Your task to perform on an android device: What is the news today? Image 0: 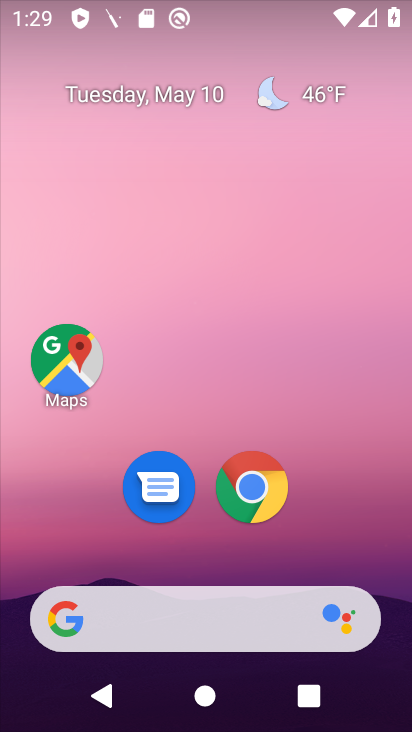
Step 0: drag from (346, 528) to (407, 337)
Your task to perform on an android device: What is the news today? Image 1: 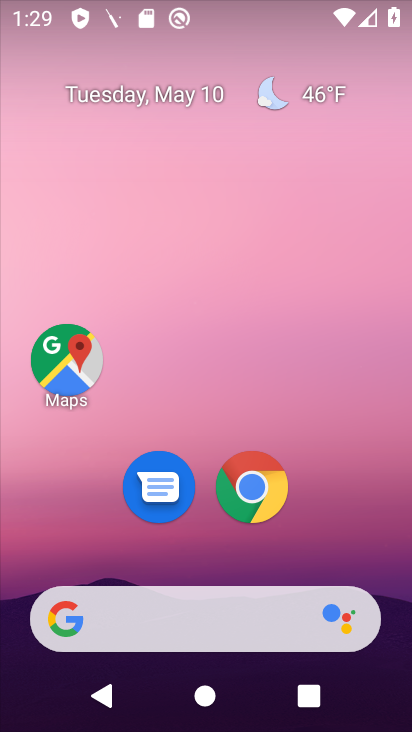
Step 1: click (275, 502)
Your task to perform on an android device: What is the news today? Image 2: 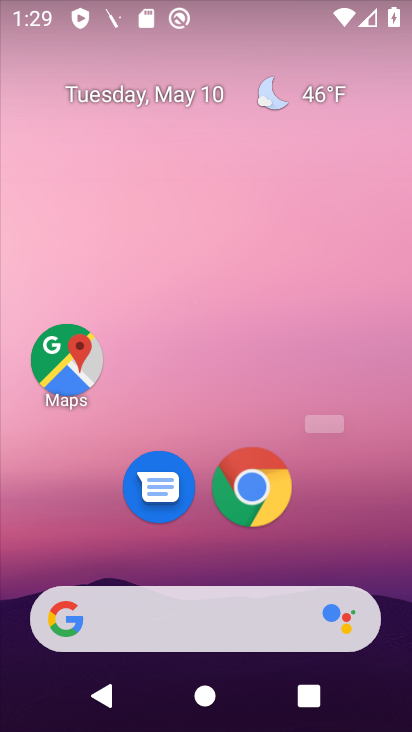
Step 2: click (277, 480)
Your task to perform on an android device: What is the news today? Image 3: 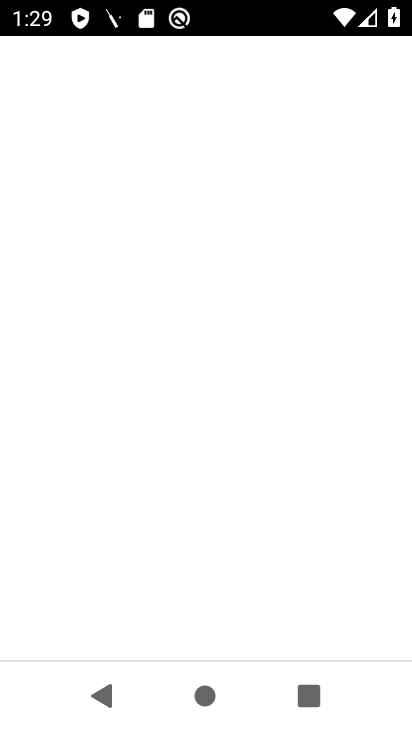
Step 3: click (256, 490)
Your task to perform on an android device: What is the news today? Image 4: 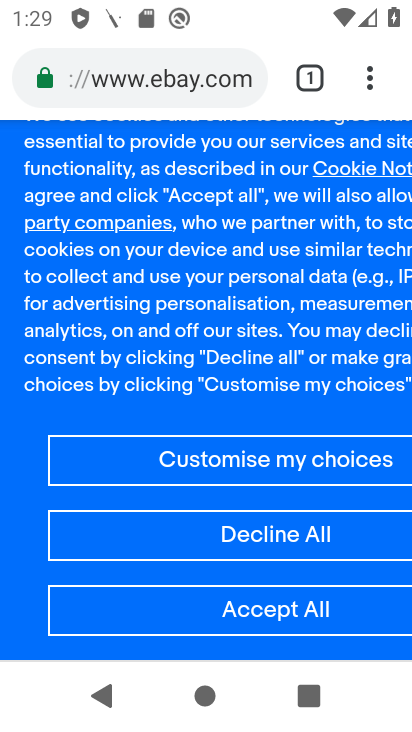
Step 4: click (230, 74)
Your task to perform on an android device: What is the news today? Image 5: 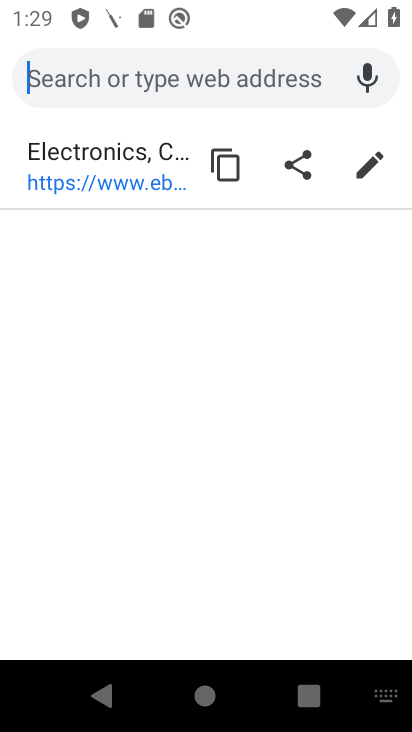
Step 5: type "news"
Your task to perform on an android device: What is the news today? Image 6: 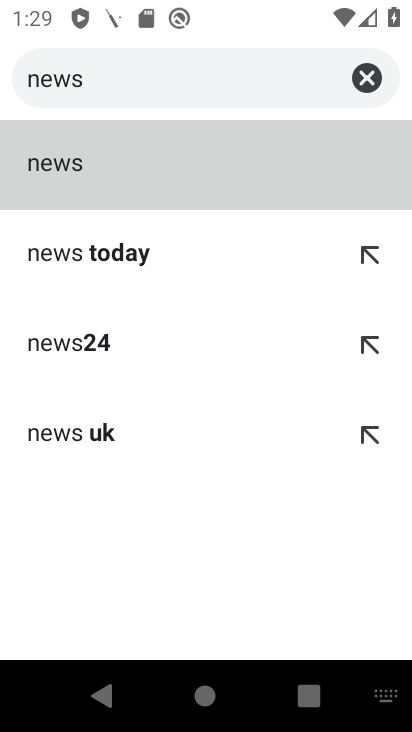
Step 6: click (49, 163)
Your task to perform on an android device: What is the news today? Image 7: 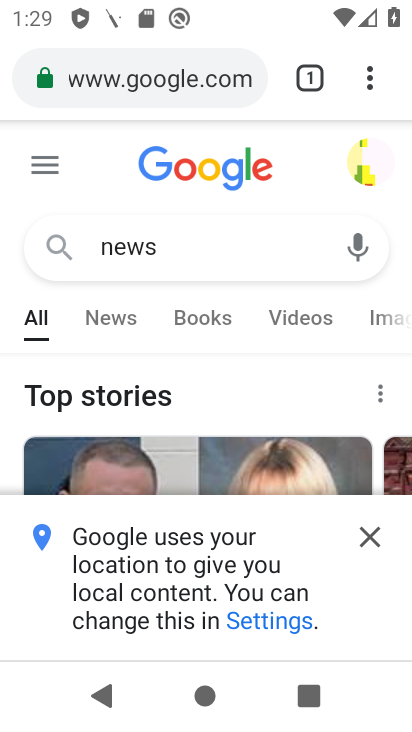
Step 7: drag from (270, 345) to (248, 309)
Your task to perform on an android device: What is the news today? Image 8: 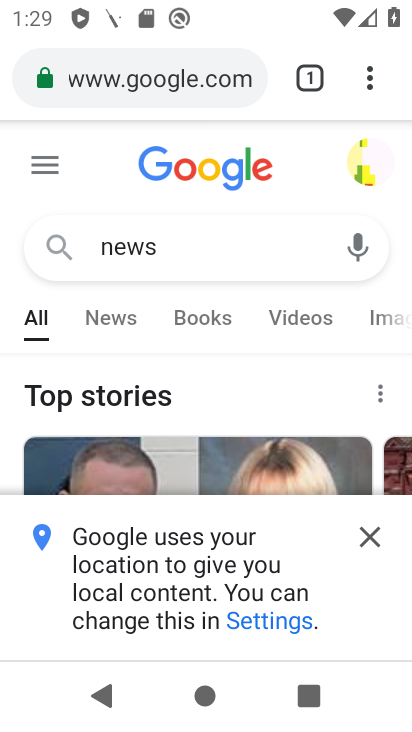
Step 8: click (103, 290)
Your task to perform on an android device: What is the news today? Image 9: 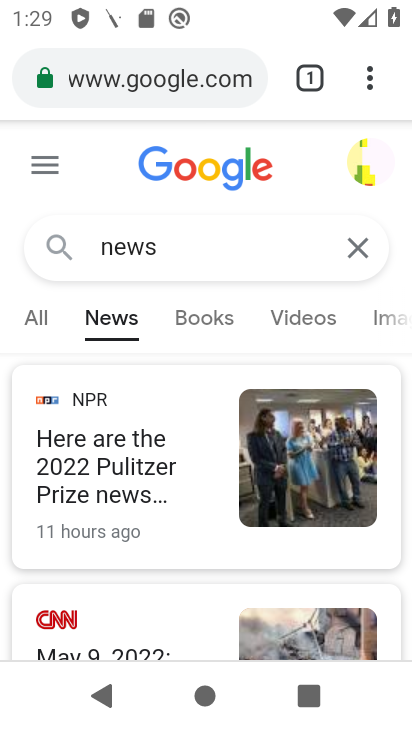
Step 9: task complete